Your task to perform on an android device: Open network settings Image 0: 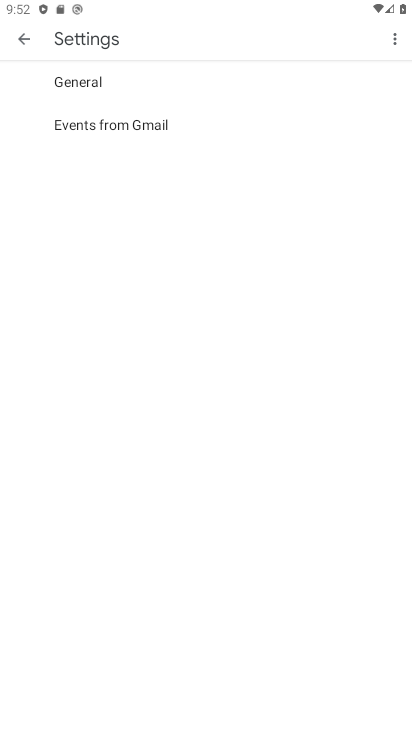
Step 0: press home button
Your task to perform on an android device: Open network settings Image 1: 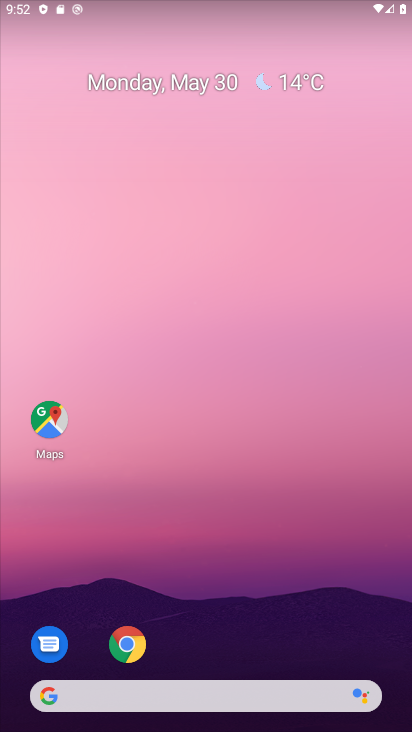
Step 1: drag from (200, 639) to (276, 90)
Your task to perform on an android device: Open network settings Image 2: 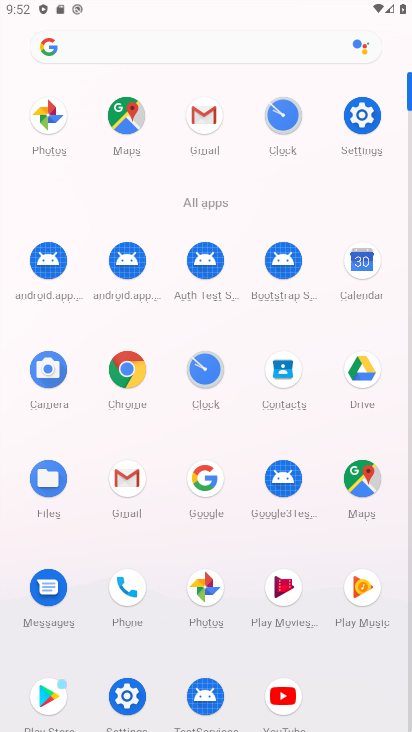
Step 2: click (363, 117)
Your task to perform on an android device: Open network settings Image 3: 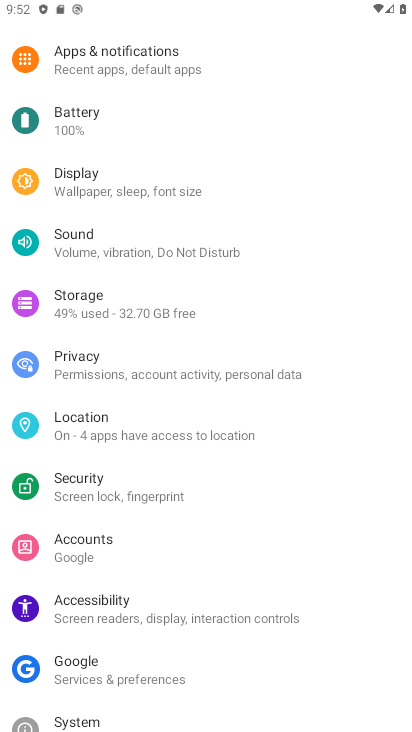
Step 3: drag from (238, 139) to (205, 519)
Your task to perform on an android device: Open network settings Image 4: 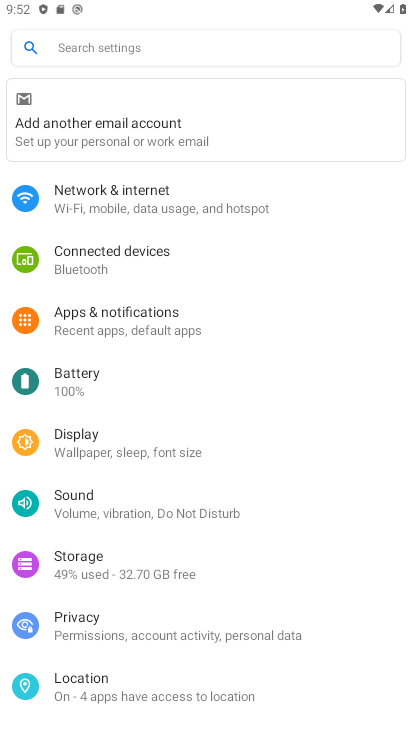
Step 4: click (97, 193)
Your task to perform on an android device: Open network settings Image 5: 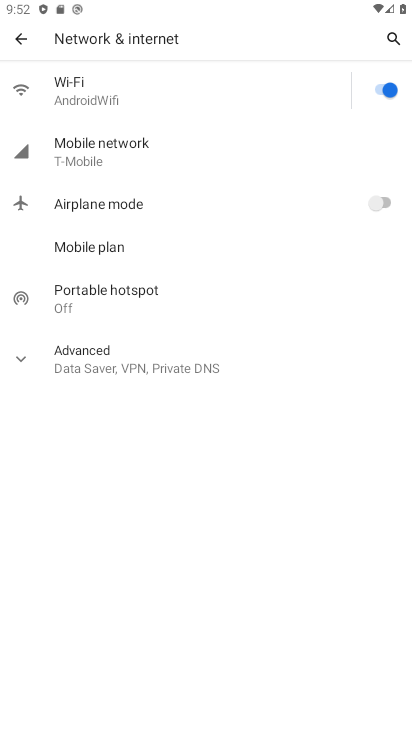
Step 5: task complete